Your task to perform on an android device: turn on location history Image 0: 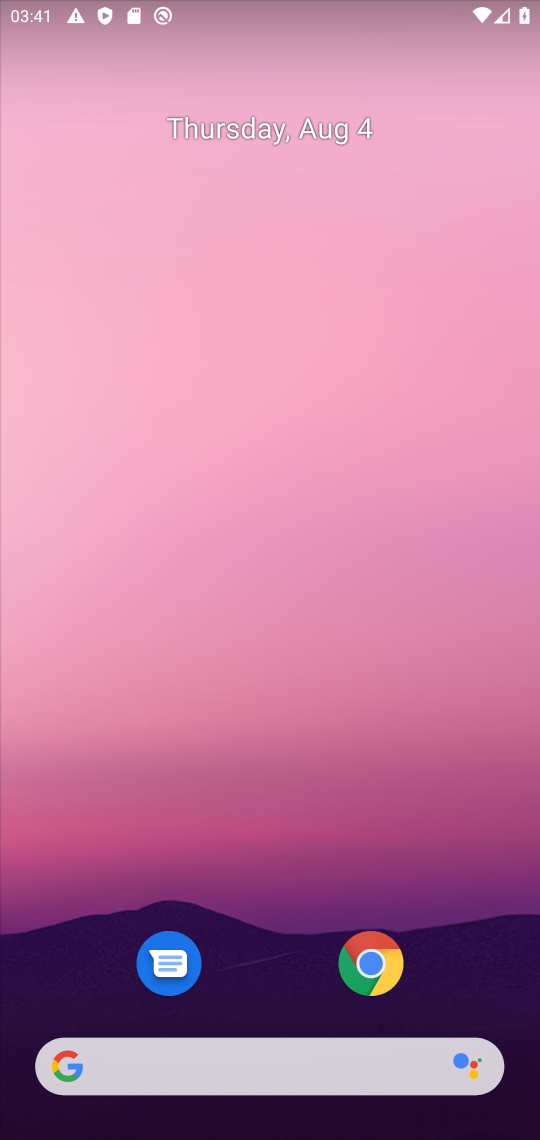
Step 0: drag from (464, 976) to (458, 54)
Your task to perform on an android device: turn on location history Image 1: 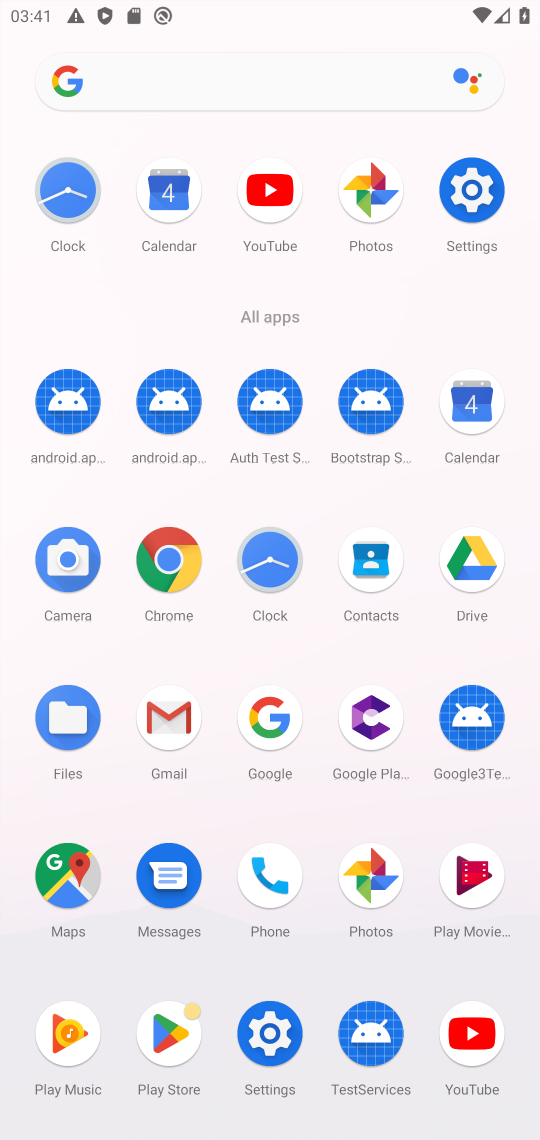
Step 1: click (64, 880)
Your task to perform on an android device: turn on location history Image 2: 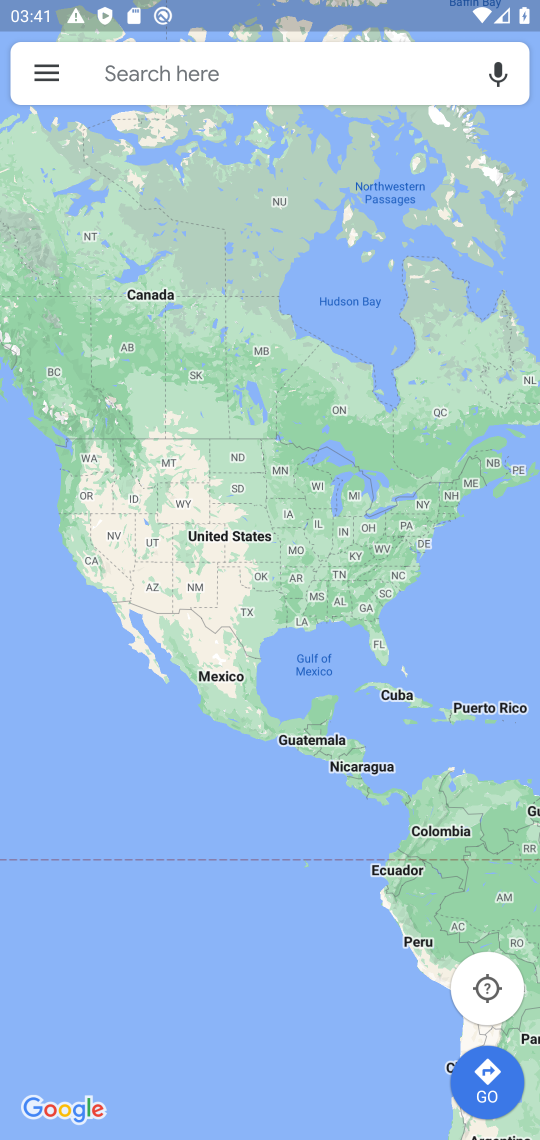
Step 2: click (52, 71)
Your task to perform on an android device: turn on location history Image 3: 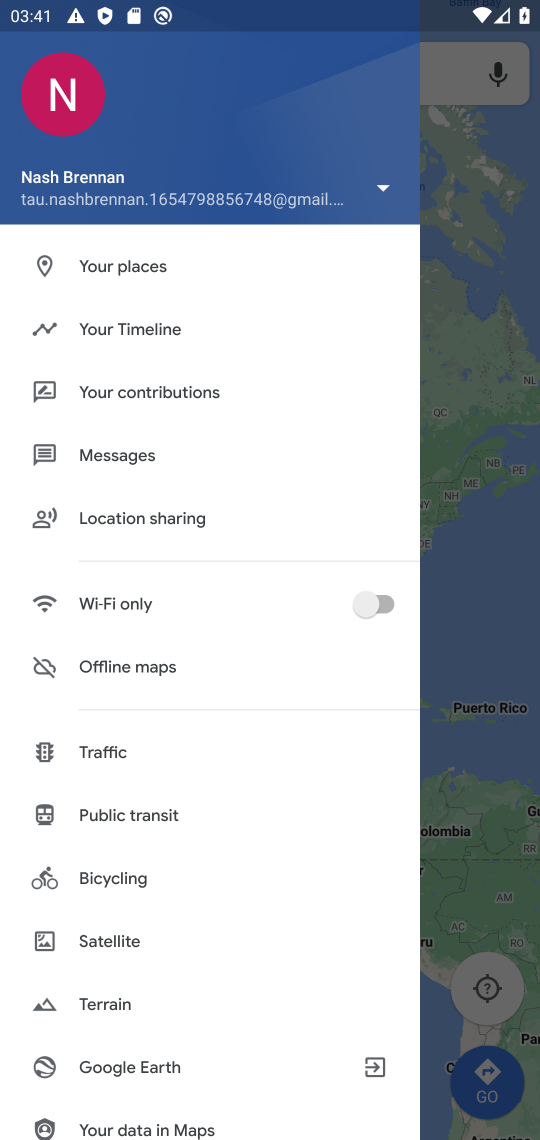
Step 3: click (112, 333)
Your task to perform on an android device: turn on location history Image 4: 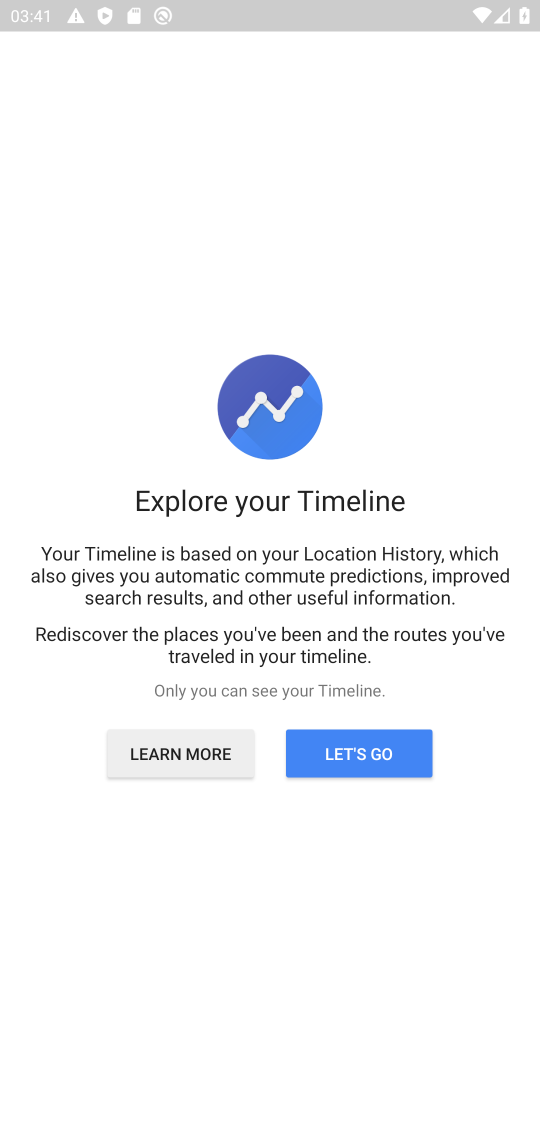
Step 4: click (366, 753)
Your task to perform on an android device: turn on location history Image 5: 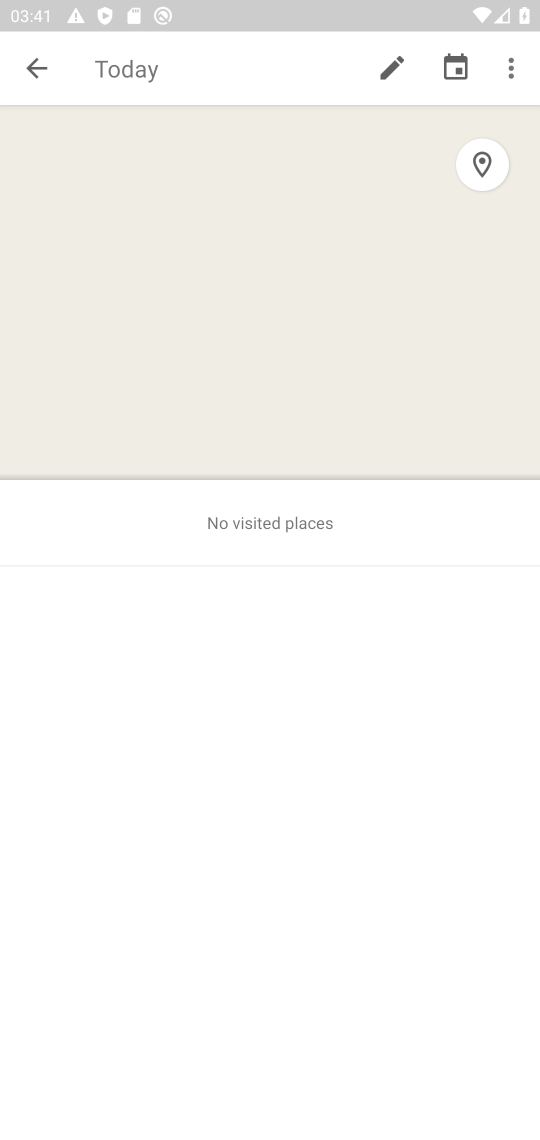
Step 5: click (517, 66)
Your task to perform on an android device: turn on location history Image 6: 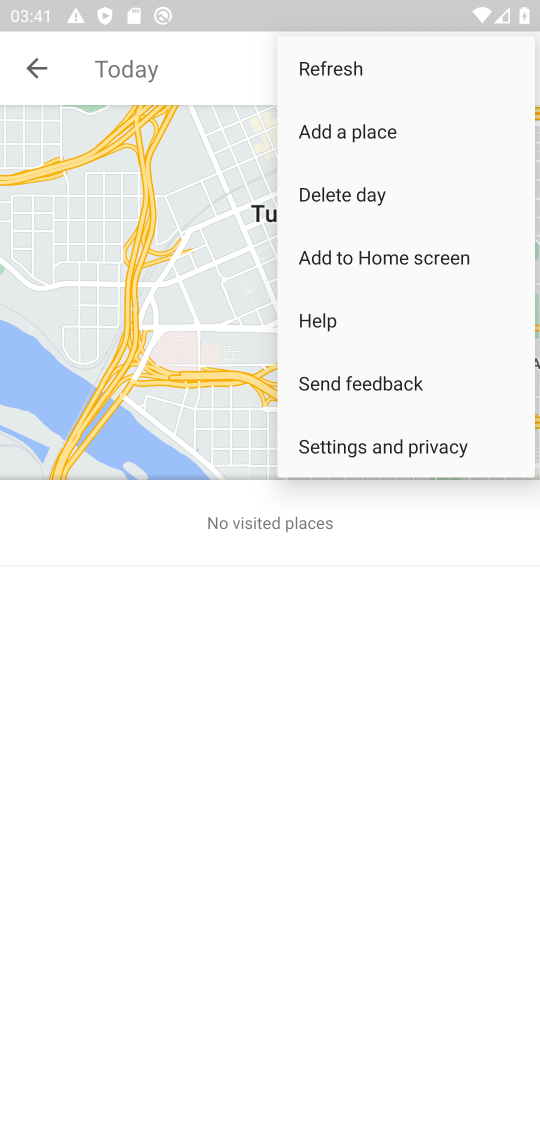
Step 6: click (345, 453)
Your task to perform on an android device: turn on location history Image 7: 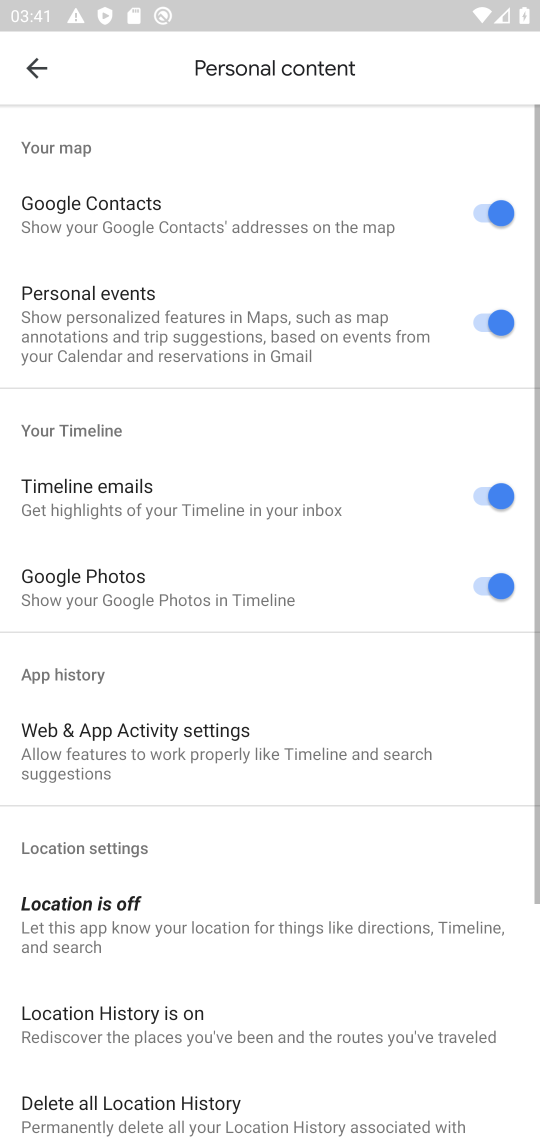
Step 7: click (156, 1016)
Your task to perform on an android device: turn on location history Image 8: 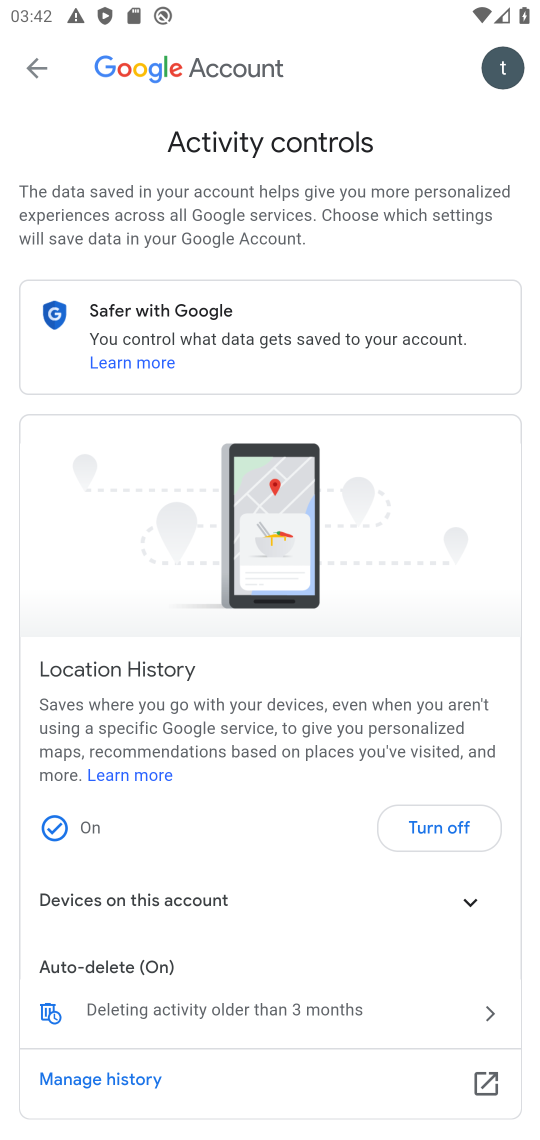
Step 8: task complete